Your task to perform on an android device: open a new tab in the chrome app Image 0: 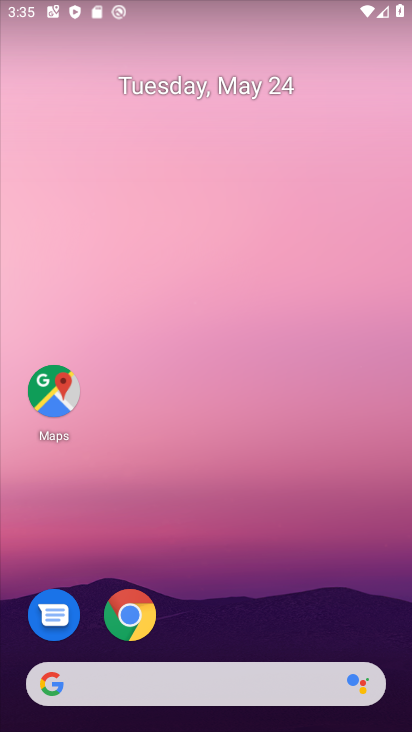
Step 0: click (137, 614)
Your task to perform on an android device: open a new tab in the chrome app Image 1: 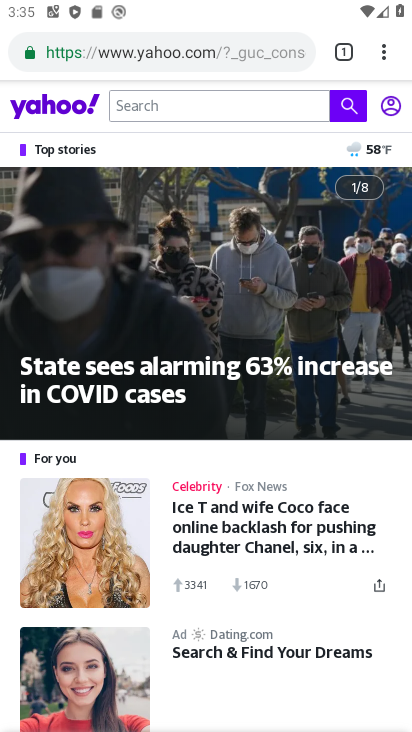
Step 1: click (384, 56)
Your task to perform on an android device: open a new tab in the chrome app Image 2: 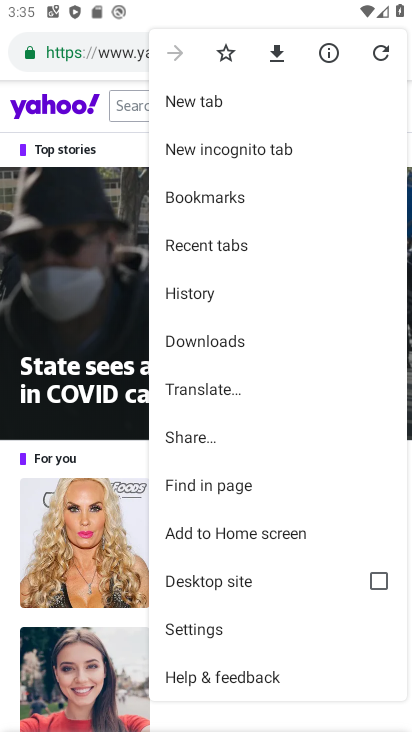
Step 2: click (186, 100)
Your task to perform on an android device: open a new tab in the chrome app Image 3: 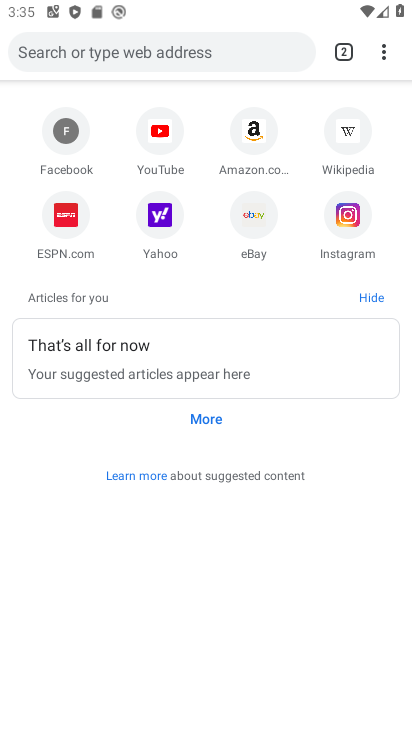
Step 3: task complete